Your task to perform on an android device: delete location history Image 0: 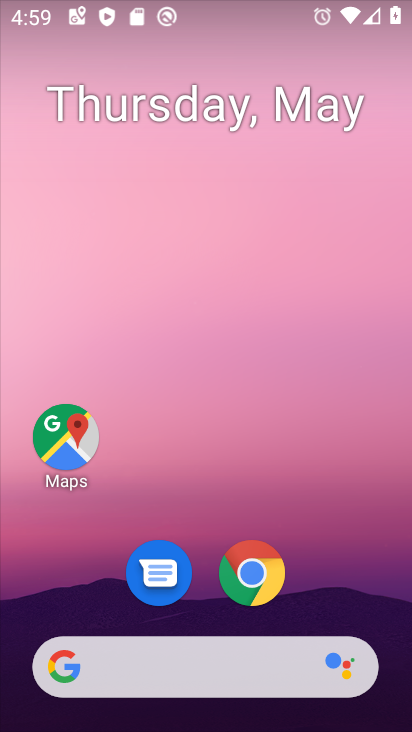
Step 0: drag from (298, 602) to (276, 184)
Your task to perform on an android device: delete location history Image 1: 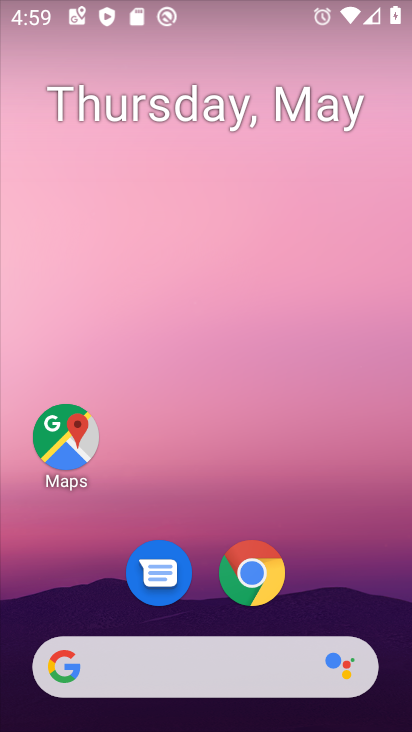
Step 1: drag from (293, 549) to (258, 276)
Your task to perform on an android device: delete location history Image 2: 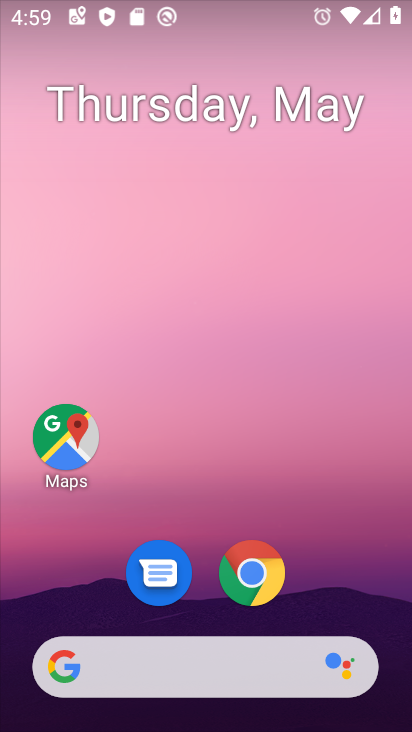
Step 2: drag from (288, 436) to (285, 69)
Your task to perform on an android device: delete location history Image 3: 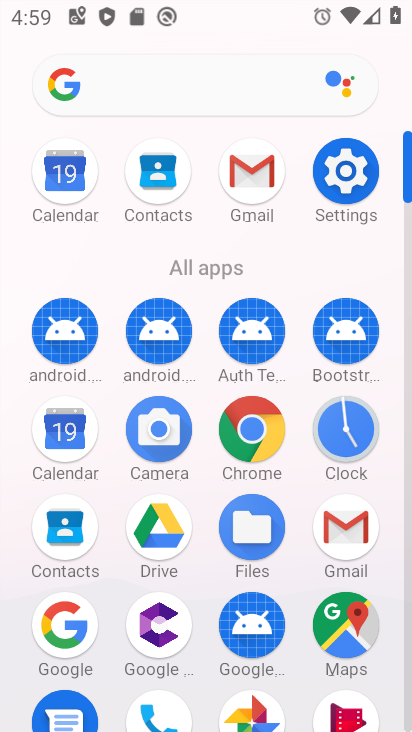
Step 3: click (355, 189)
Your task to perform on an android device: delete location history Image 4: 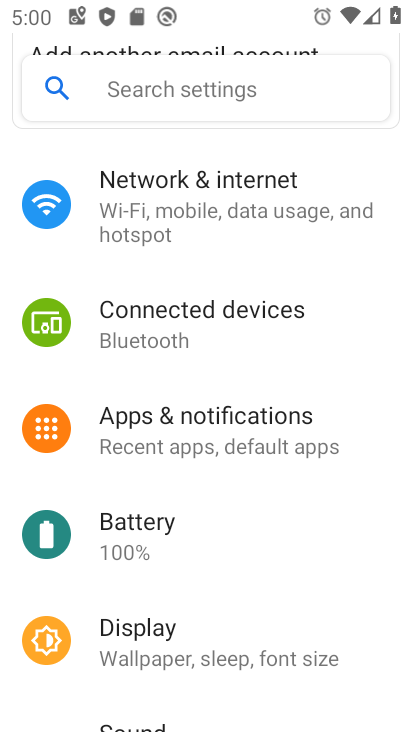
Step 4: drag from (160, 519) to (149, 300)
Your task to perform on an android device: delete location history Image 5: 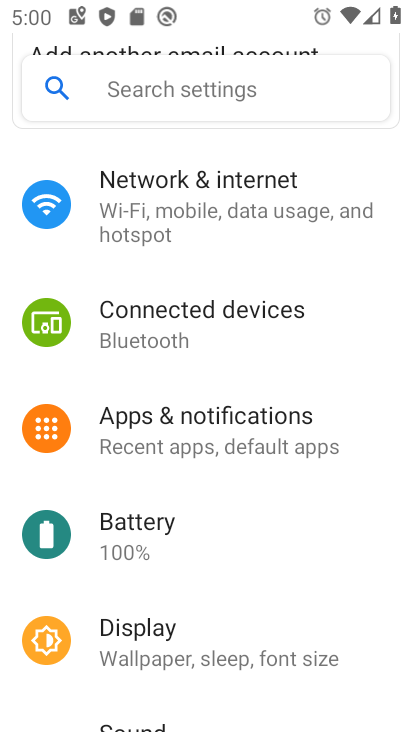
Step 5: drag from (168, 564) to (195, 215)
Your task to perform on an android device: delete location history Image 6: 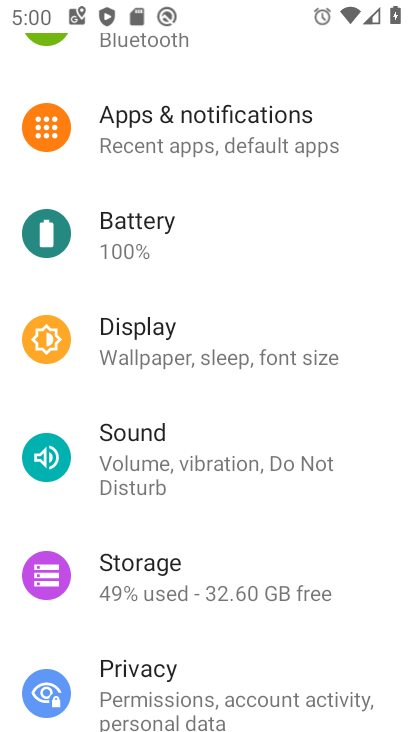
Step 6: drag from (185, 557) to (187, 271)
Your task to perform on an android device: delete location history Image 7: 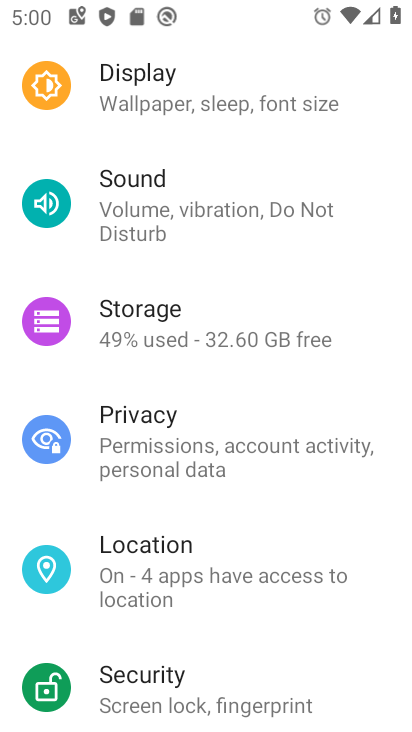
Step 7: click (122, 685)
Your task to perform on an android device: delete location history Image 8: 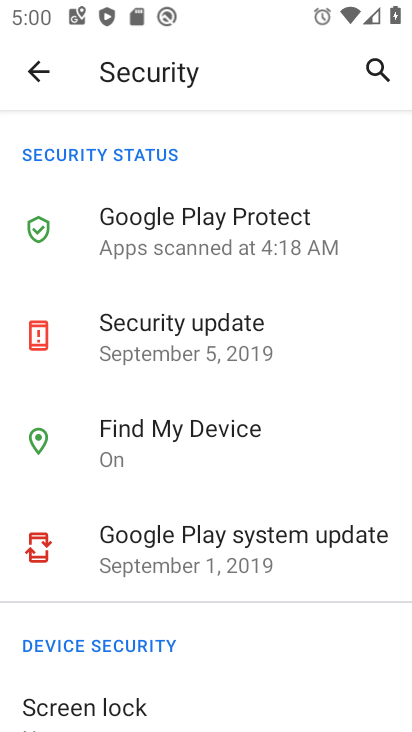
Step 8: press back button
Your task to perform on an android device: delete location history Image 9: 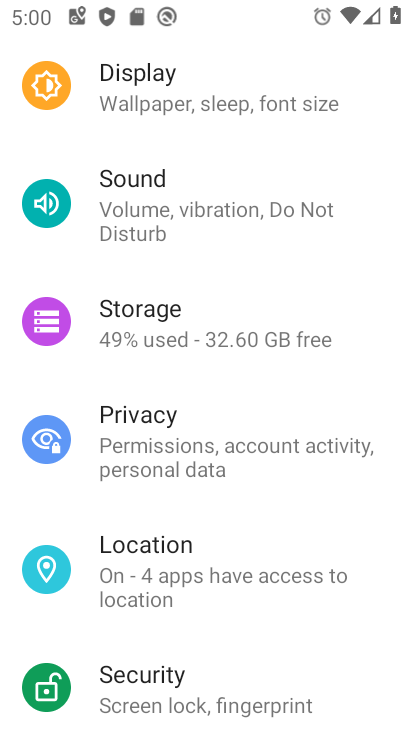
Step 9: click (141, 566)
Your task to perform on an android device: delete location history Image 10: 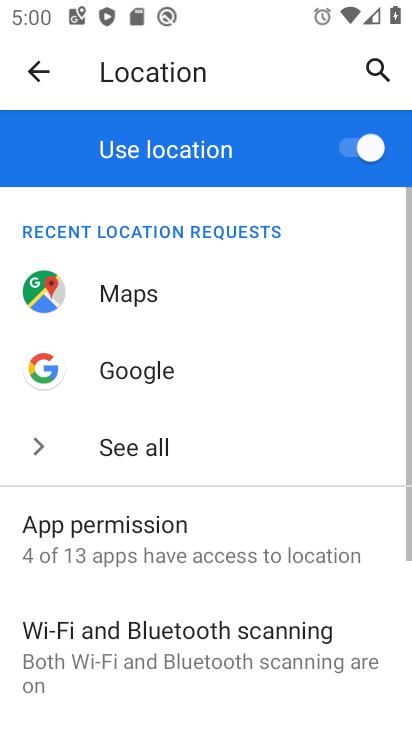
Step 10: drag from (245, 610) to (211, 86)
Your task to perform on an android device: delete location history Image 11: 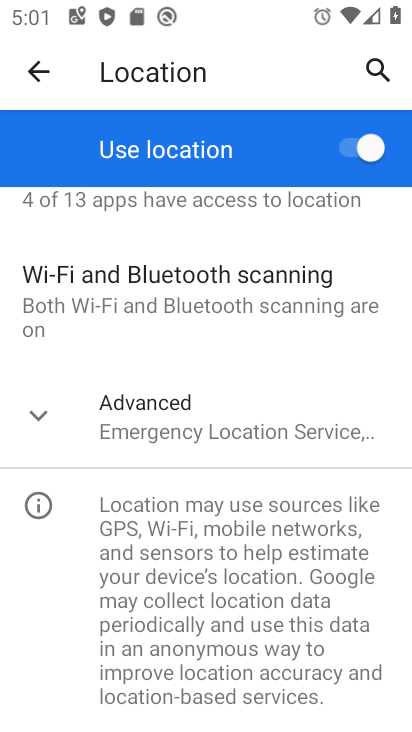
Step 11: click (140, 432)
Your task to perform on an android device: delete location history Image 12: 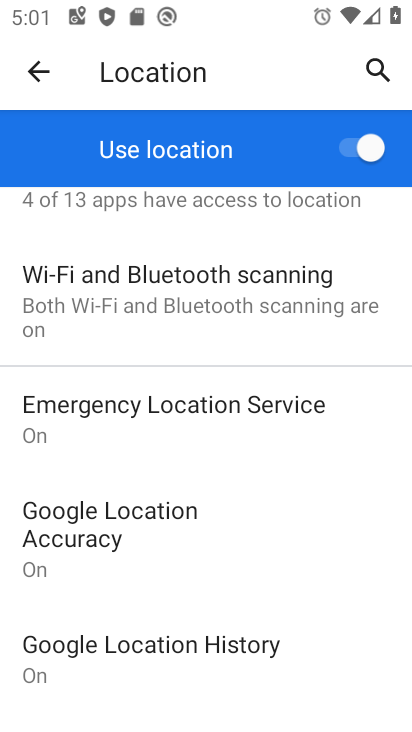
Step 12: drag from (132, 590) to (126, 393)
Your task to perform on an android device: delete location history Image 13: 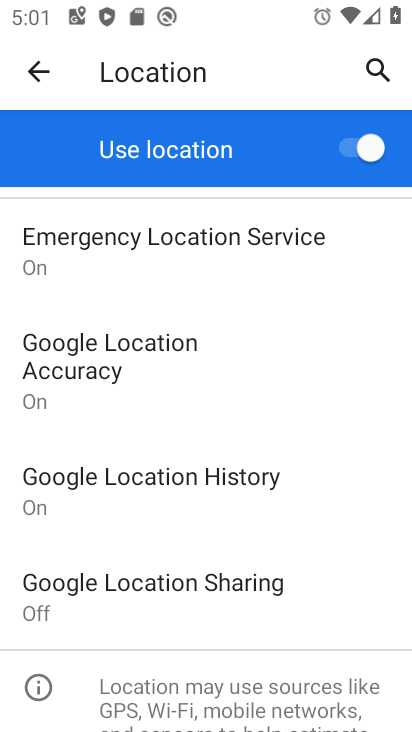
Step 13: click (140, 493)
Your task to perform on an android device: delete location history Image 14: 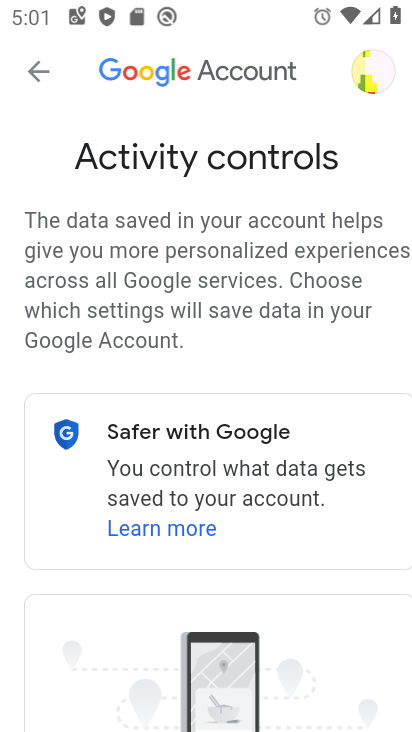
Step 14: drag from (263, 559) to (243, 488)
Your task to perform on an android device: delete location history Image 15: 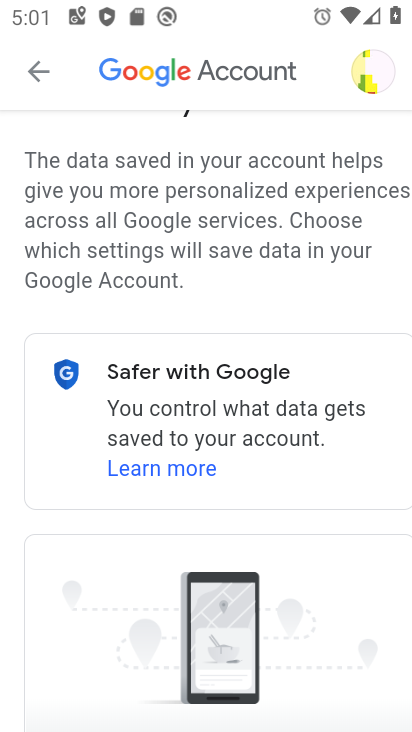
Step 15: drag from (276, 564) to (279, 370)
Your task to perform on an android device: delete location history Image 16: 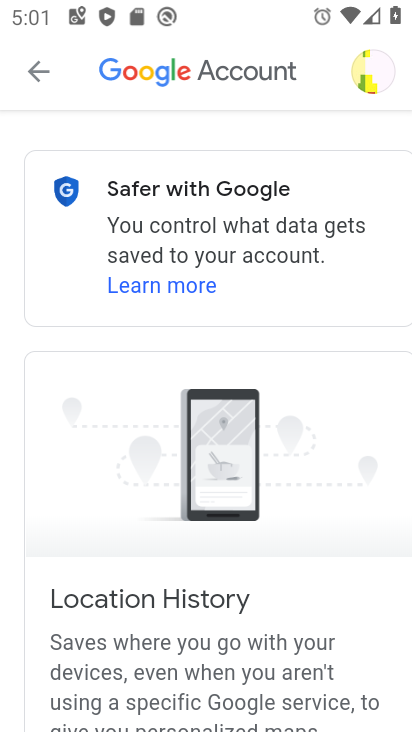
Step 16: click (231, 176)
Your task to perform on an android device: delete location history Image 17: 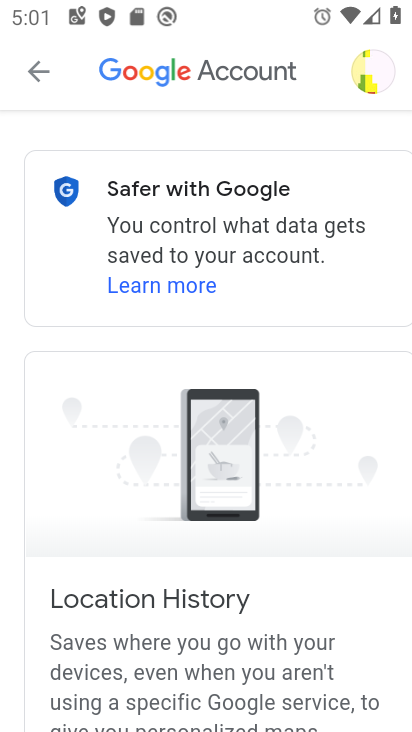
Step 17: drag from (215, 427) to (212, 175)
Your task to perform on an android device: delete location history Image 18: 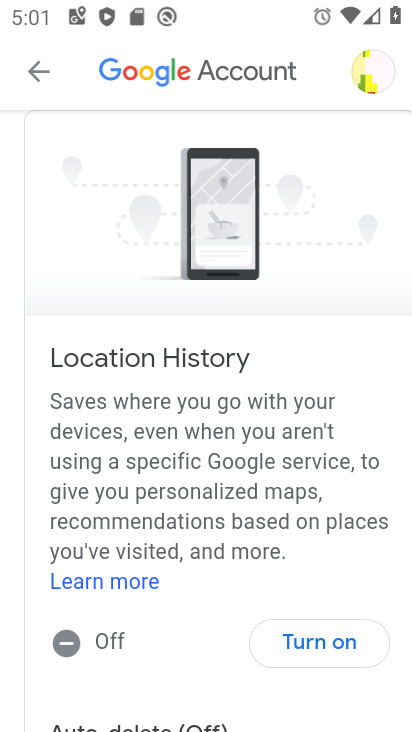
Step 18: click (296, 653)
Your task to perform on an android device: delete location history Image 19: 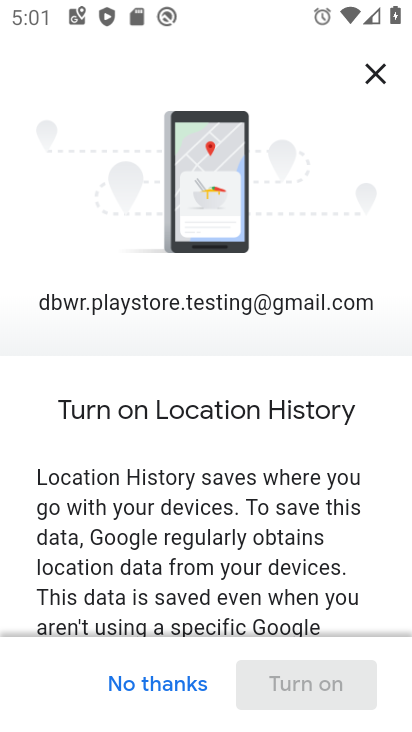
Step 19: click (377, 87)
Your task to perform on an android device: delete location history Image 20: 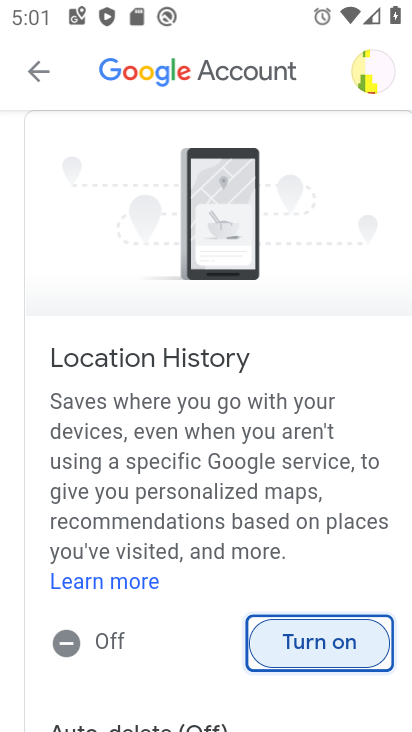
Step 20: click (204, 122)
Your task to perform on an android device: delete location history Image 21: 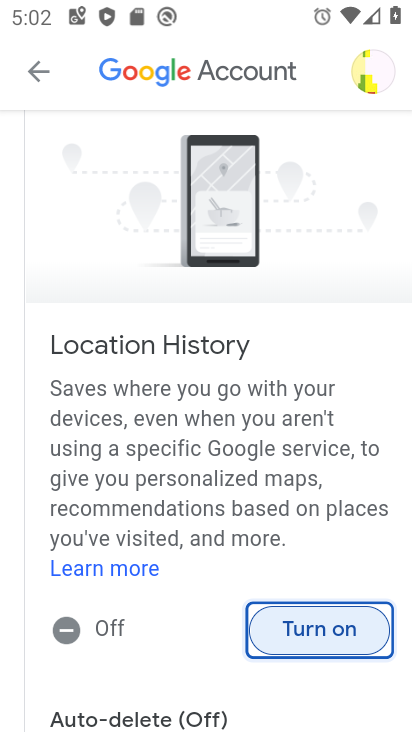
Step 21: drag from (143, 479) to (185, 177)
Your task to perform on an android device: delete location history Image 22: 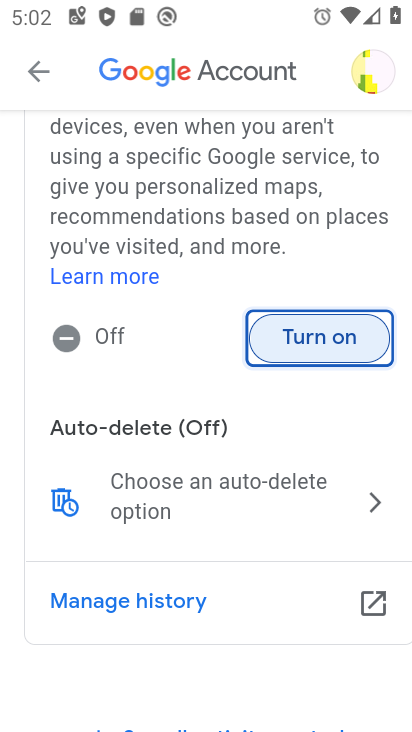
Step 22: click (128, 593)
Your task to perform on an android device: delete location history Image 23: 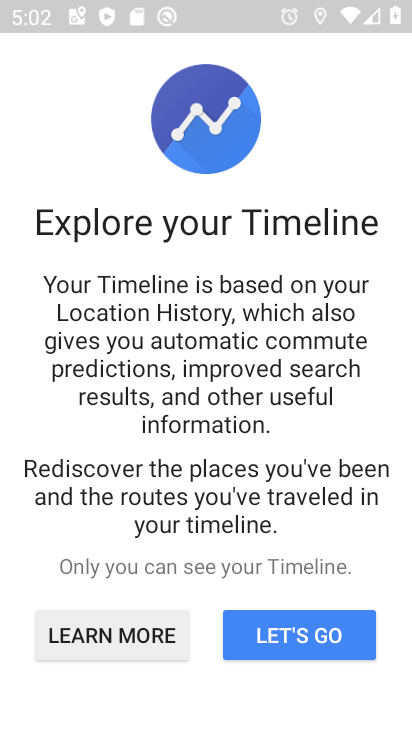
Step 23: drag from (216, 570) to (216, 254)
Your task to perform on an android device: delete location history Image 24: 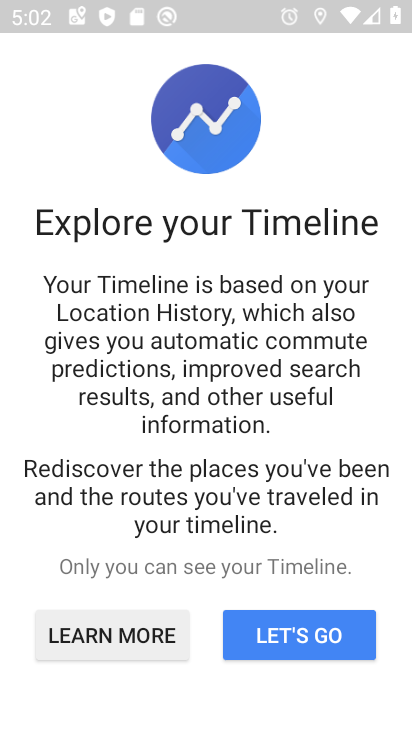
Step 24: drag from (162, 350) to (164, 200)
Your task to perform on an android device: delete location history Image 25: 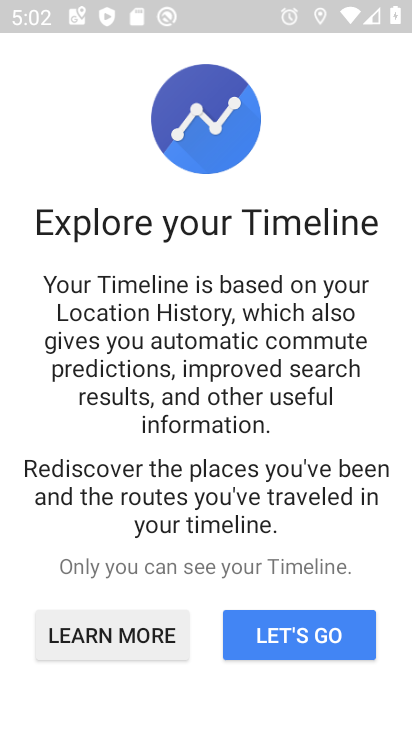
Step 25: drag from (302, 558) to (298, 215)
Your task to perform on an android device: delete location history Image 26: 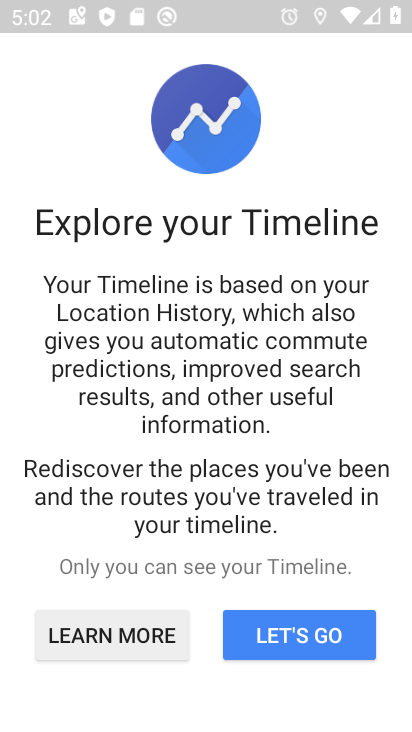
Step 26: click (256, 641)
Your task to perform on an android device: delete location history Image 27: 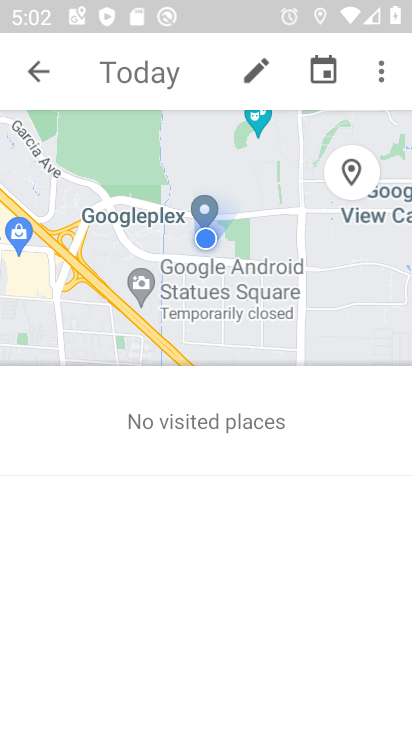
Step 27: click (382, 65)
Your task to perform on an android device: delete location history Image 28: 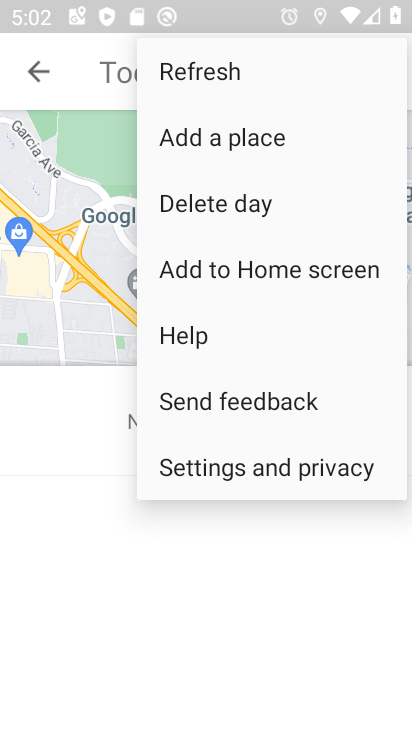
Step 28: click (240, 470)
Your task to perform on an android device: delete location history Image 29: 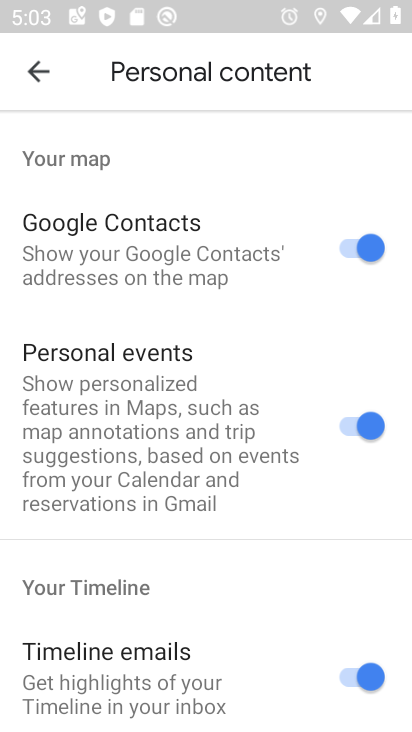
Step 29: drag from (152, 626) to (141, 349)
Your task to perform on an android device: delete location history Image 30: 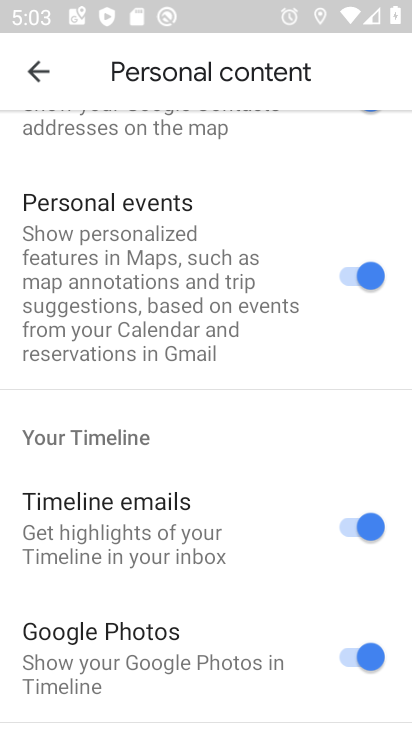
Step 30: drag from (177, 637) to (162, 249)
Your task to perform on an android device: delete location history Image 31: 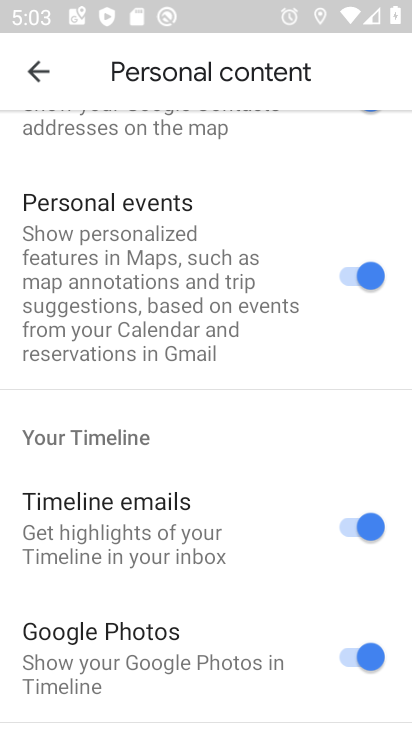
Step 31: click (166, 257)
Your task to perform on an android device: delete location history Image 32: 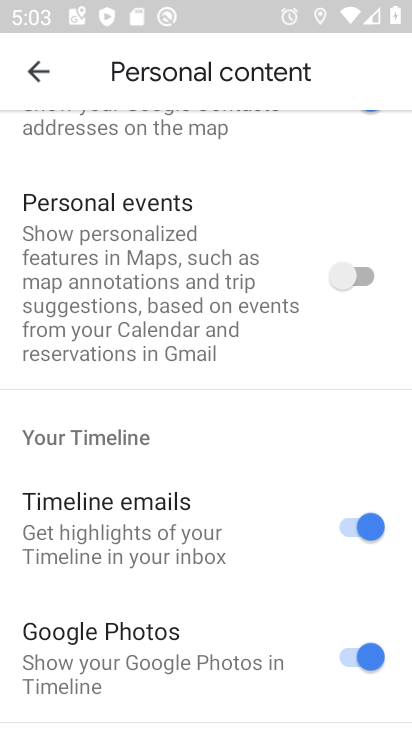
Step 32: click (365, 275)
Your task to perform on an android device: delete location history Image 33: 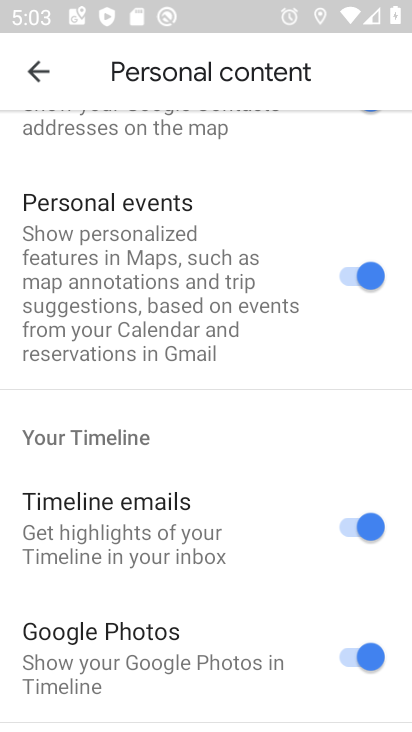
Step 33: click (24, 71)
Your task to perform on an android device: delete location history Image 34: 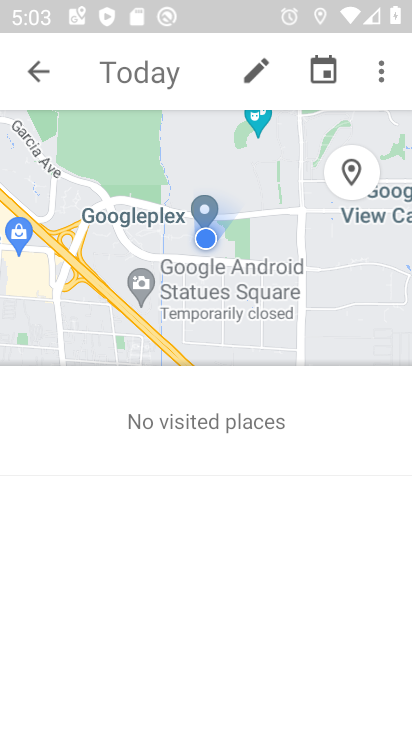
Step 34: click (377, 57)
Your task to perform on an android device: delete location history Image 35: 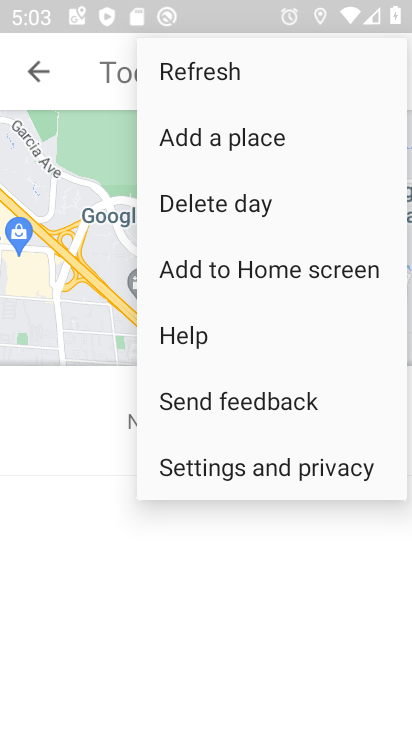
Step 35: click (206, 476)
Your task to perform on an android device: delete location history Image 36: 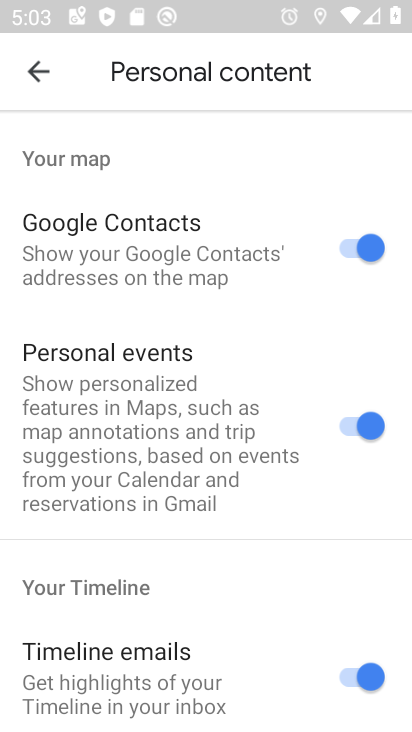
Step 36: drag from (158, 461) to (178, 180)
Your task to perform on an android device: delete location history Image 37: 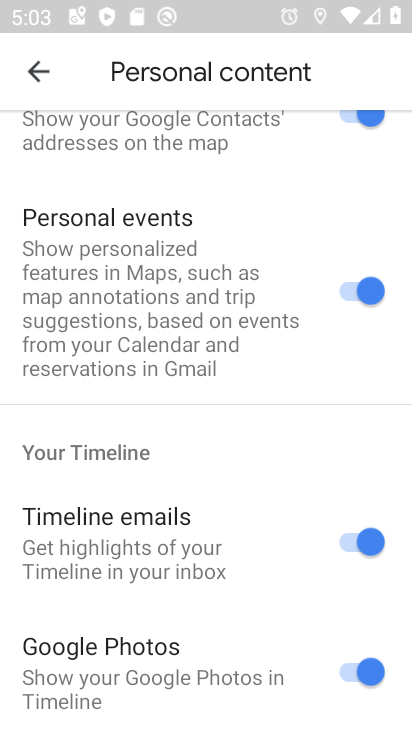
Step 37: drag from (152, 626) to (178, 234)
Your task to perform on an android device: delete location history Image 38: 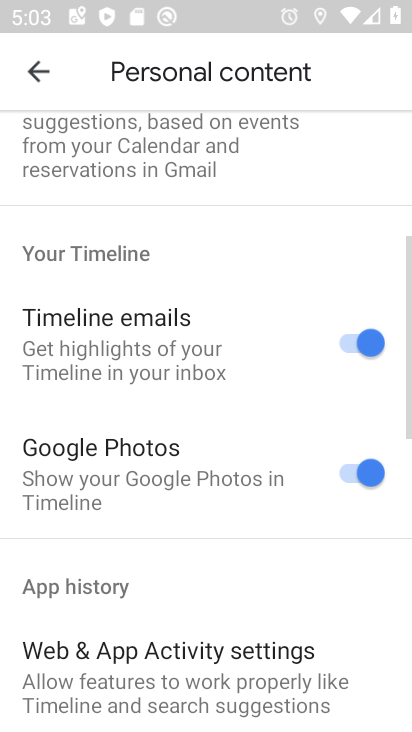
Step 38: drag from (151, 549) to (175, 278)
Your task to perform on an android device: delete location history Image 39: 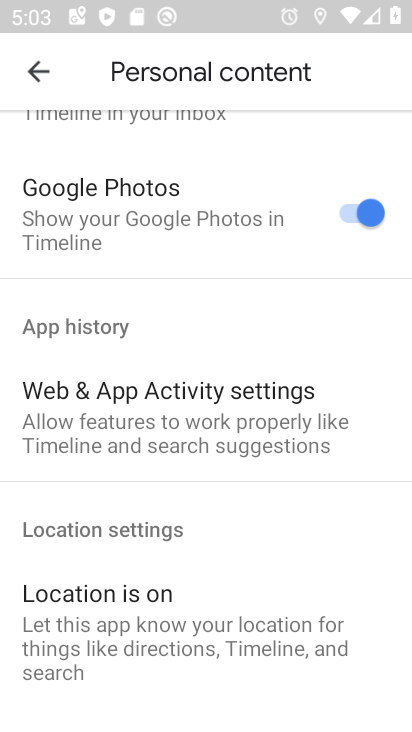
Step 39: drag from (151, 663) to (170, 421)
Your task to perform on an android device: delete location history Image 40: 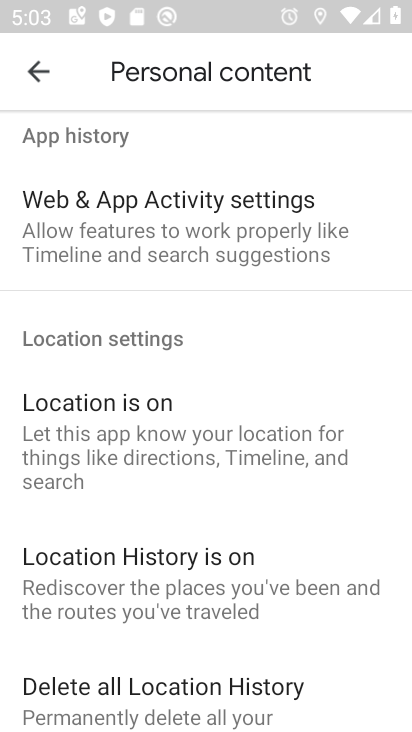
Step 40: click (221, 359)
Your task to perform on an android device: delete location history Image 41: 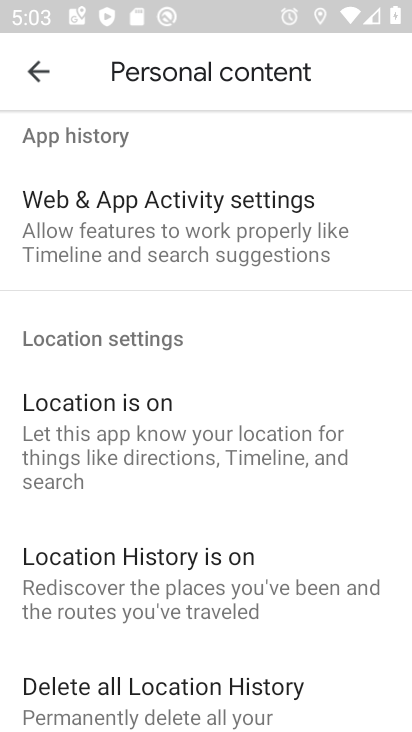
Step 41: click (138, 693)
Your task to perform on an android device: delete location history Image 42: 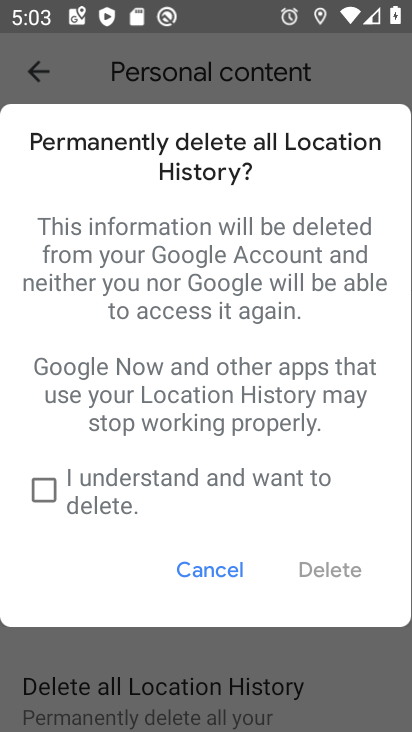
Step 42: click (49, 485)
Your task to perform on an android device: delete location history Image 43: 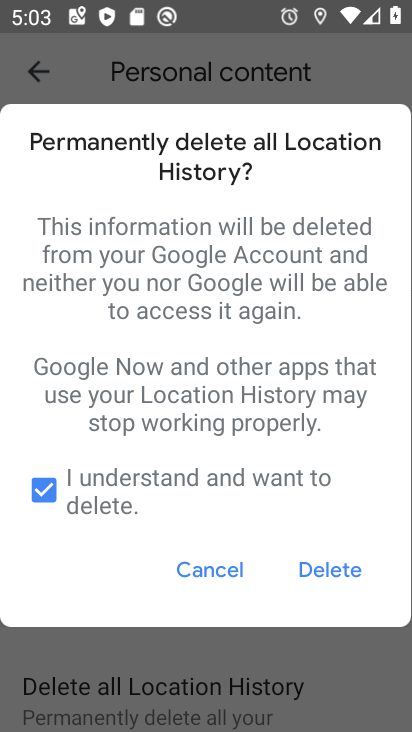
Step 43: click (323, 574)
Your task to perform on an android device: delete location history Image 44: 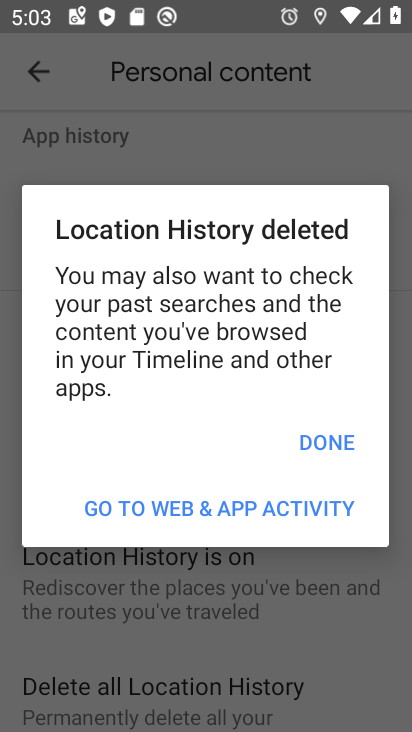
Step 44: task complete